Your task to perform on an android device: empty trash in google photos Image 0: 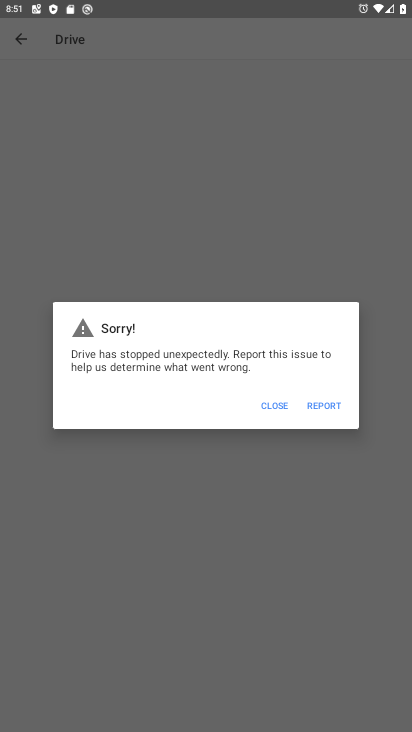
Step 0: press home button
Your task to perform on an android device: empty trash in google photos Image 1: 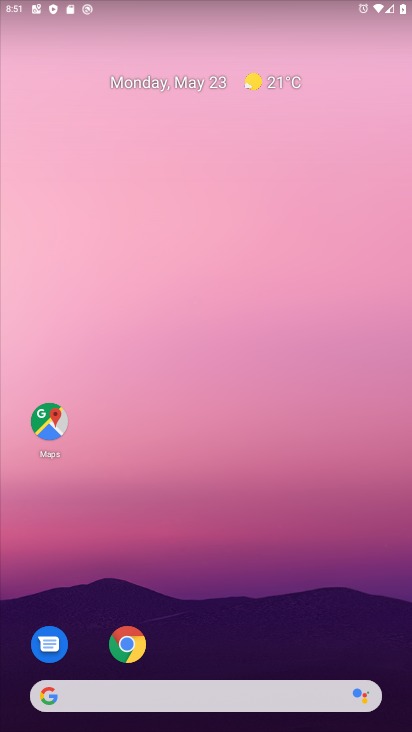
Step 1: drag from (133, 717) to (120, 208)
Your task to perform on an android device: empty trash in google photos Image 2: 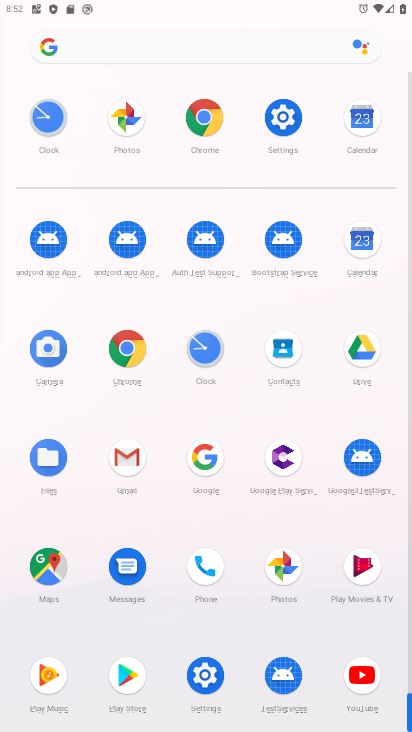
Step 2: click (137, 119)
Your task to perform on an android device: empty trash in google photos Image 3: 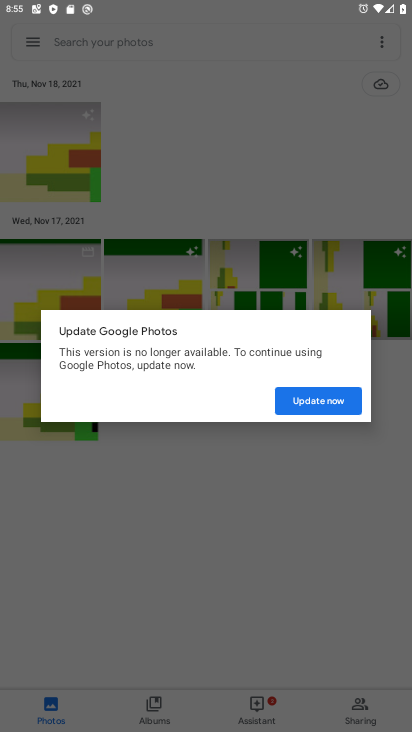
Step 3: press home button
Your task to perform on an android device: empty trash in google photos Image 4: 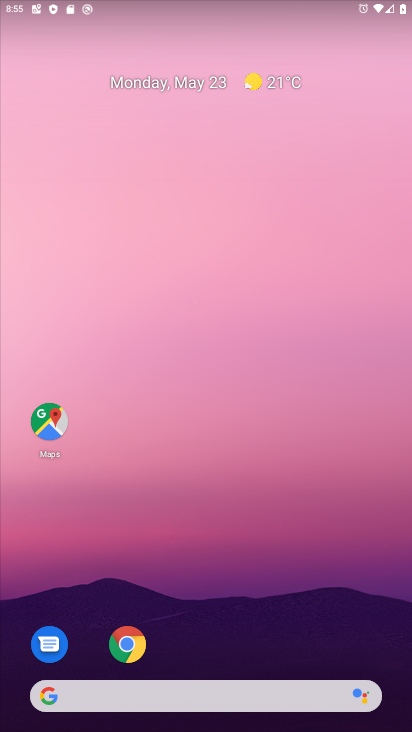
Step 4: drag from (115, 719) to (209, 125)
Your task to perform on an android device: empty trash in google photos Image 5: 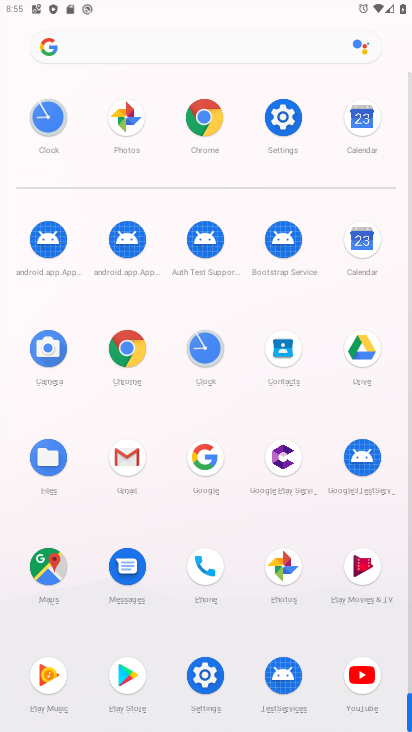
Step 5: click (126, 123)
Your task to perform on an android device: empty trash in google photos Image 6: 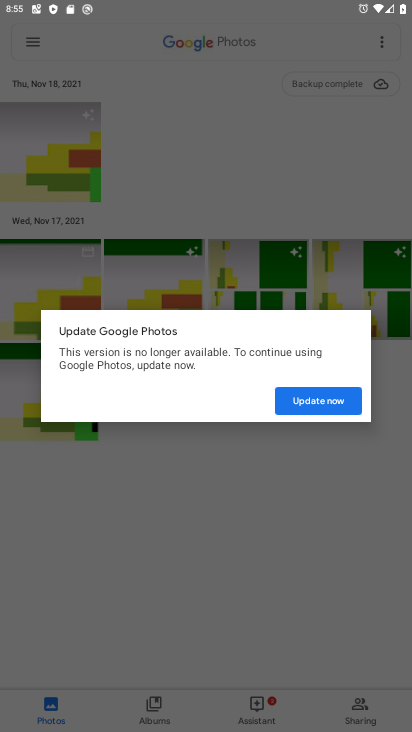
Step 6: click (308, 394)
Your task to perform on an android device: empty trash in google photos Image 7: 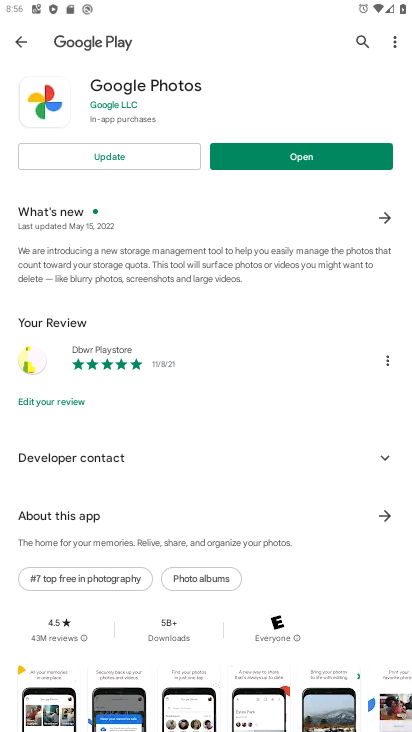
Step 7: click (166, 157)
Your task to perform on an android device: empty trash in google photos Image 8: 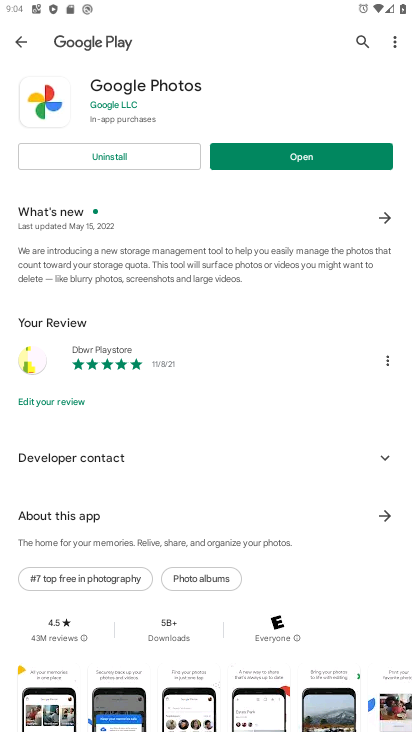
Step 8: press home button
Your task to perform on an android device: empty trash in google photos Image 9: 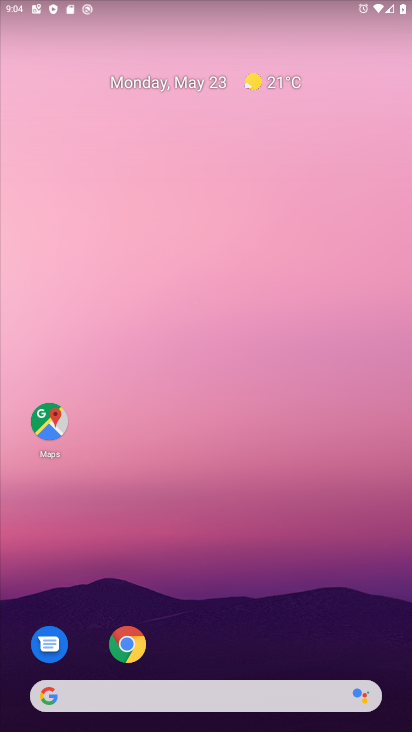
Step 9: drag from (294, 729) to (237, 228)
Your task to perform on an android device: empty trash in google photos Image 10: 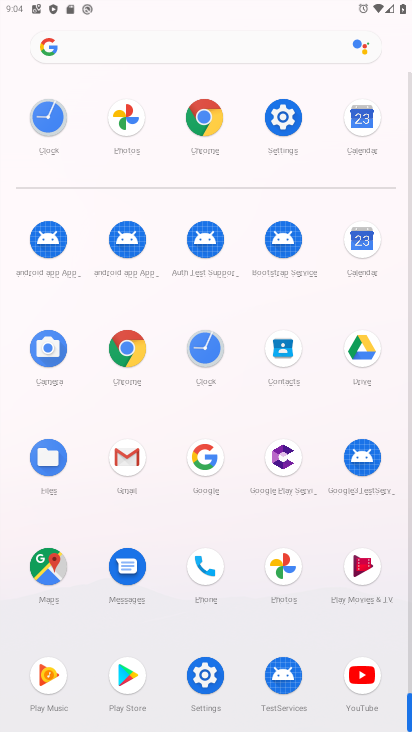
Step 10: click (113, 119)
Your task to perform on an android device: empty trash in google photos Image 11: 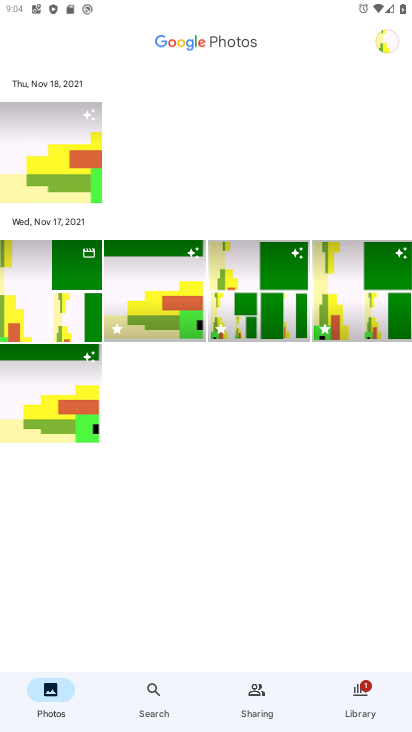
Step 11: click (357, 697)
Your task to perform on an android device: empty trash in google photos Image 12: 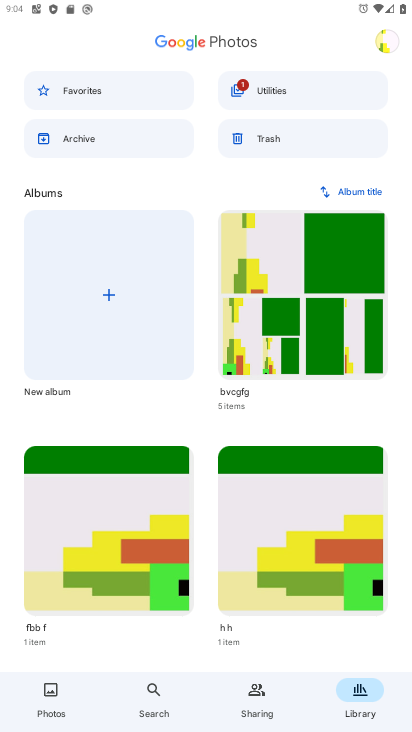
Step 12: click (254, 143)
Your task to perform on an android device: empty trash in google photos Image 13: 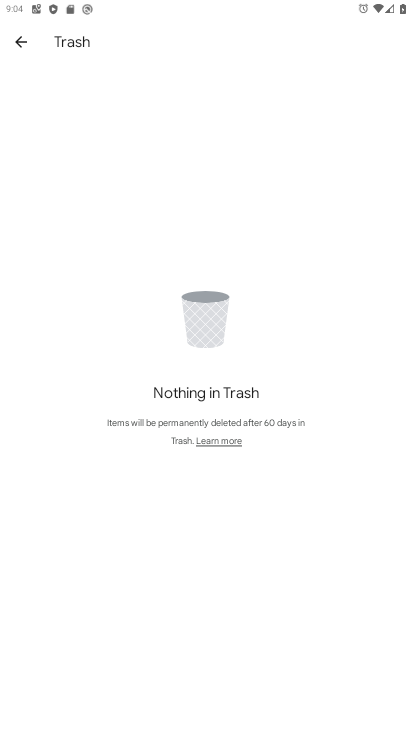
Step 13: task complete